Your task to perform on an android device: toggle pop-ups in chrome Image 0: 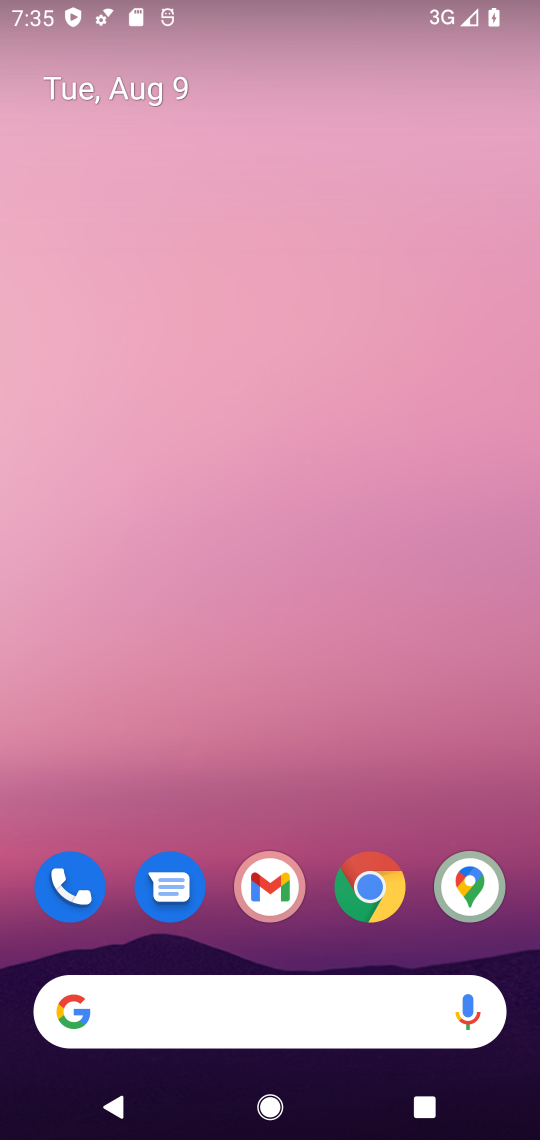
Step 0: click (364, 877)
Your task to perform on an android device: toggle pop-ups in chrome Image 1: 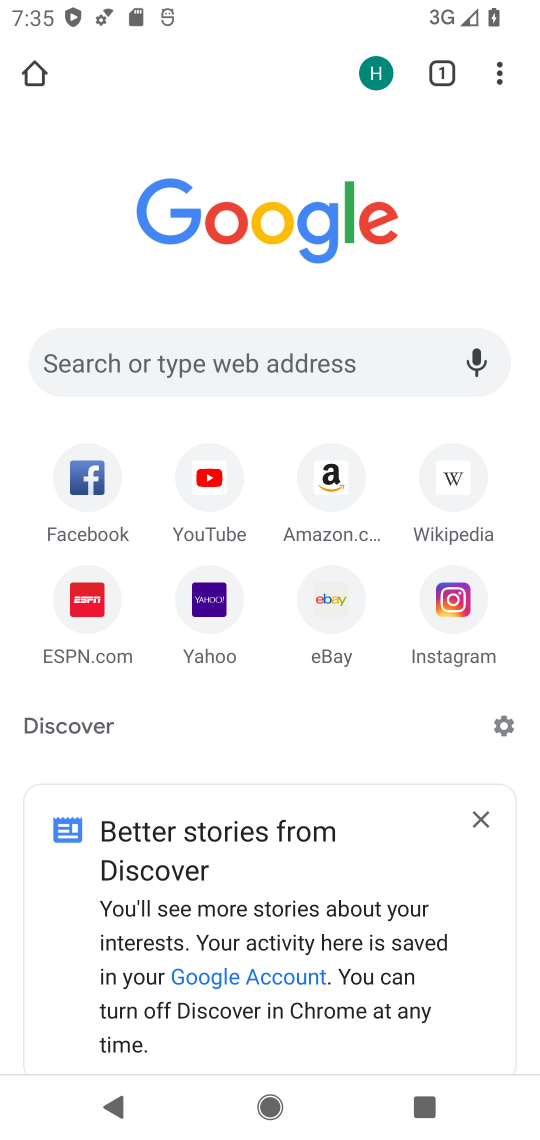
Step 1: click (497, 73)
Your task to perform on an android device: toggle pop-ups in chrome Image 2: 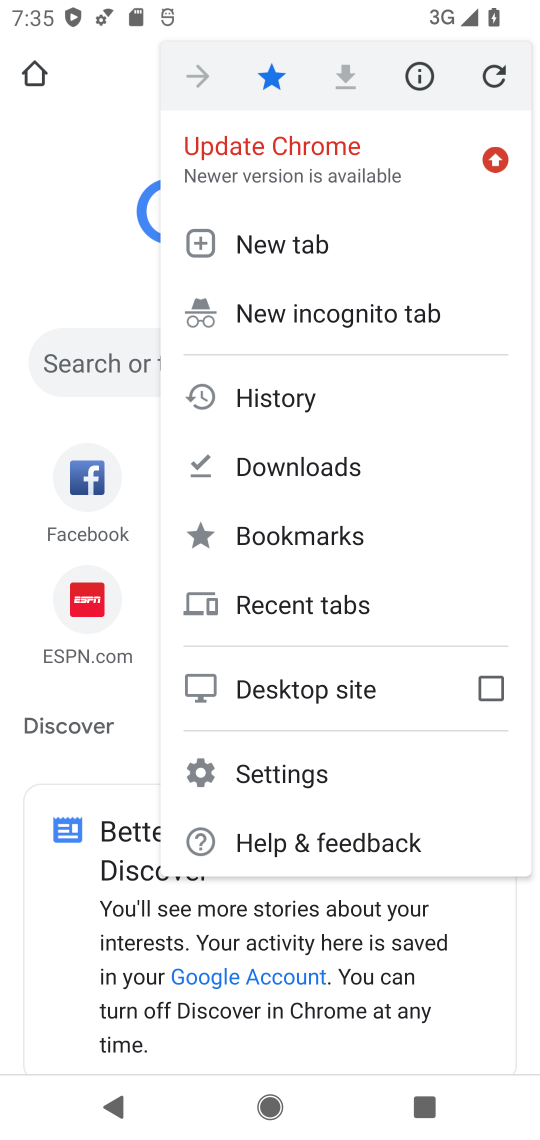
Step 2: click (324, 774)
Your task to perform on an android device: toggle pop-ups in chrome Image 3: 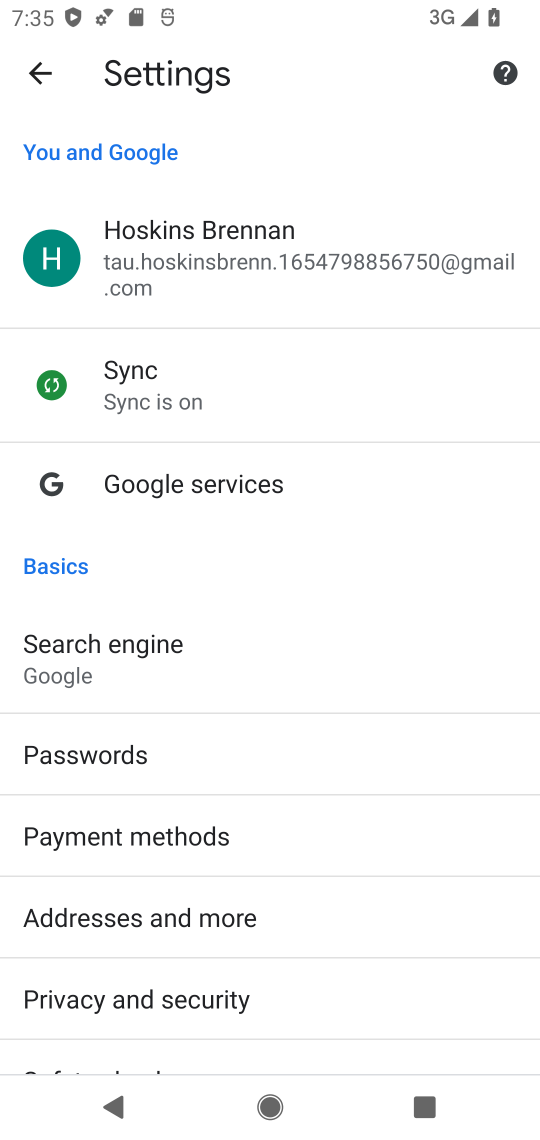
Step 3: drag from (312, 890) to (303, 0)
Your task to perform on an android device: toggle pop-ups in chrome Image 4: 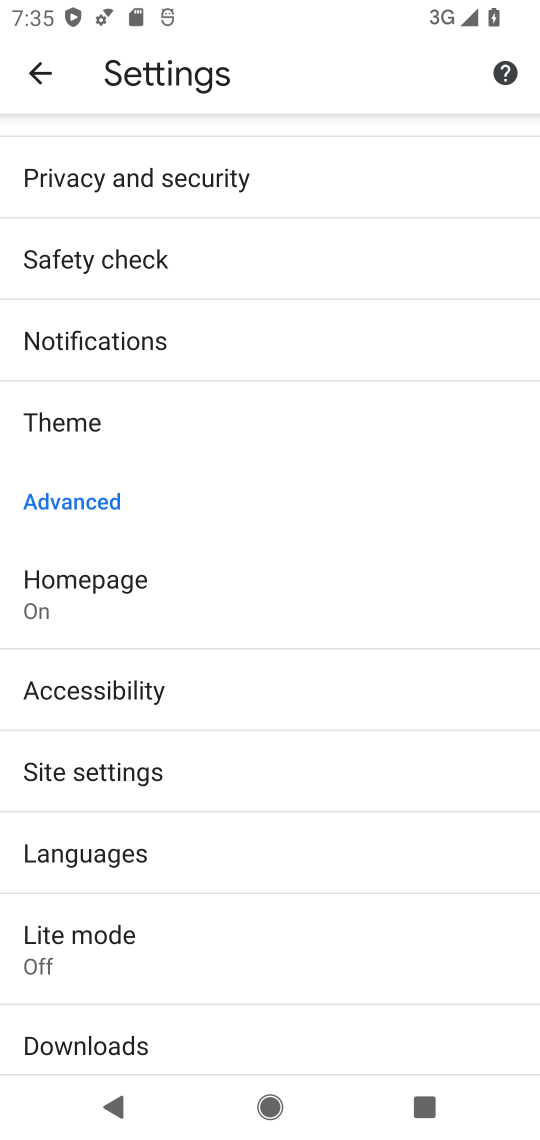
Step 4: click (212, 775)
Your task to perform on an android device: toggle pop-ups in chrome Image 5: 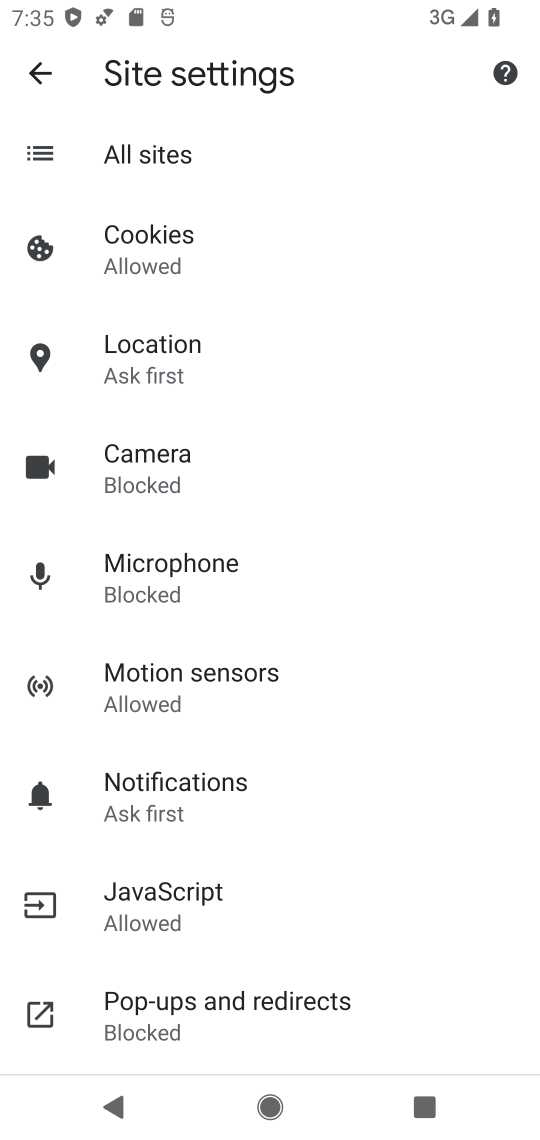
Step 5: click (232, 1010)
Your task to perform on an android device: toggle pop-ups in chrome Image 6: 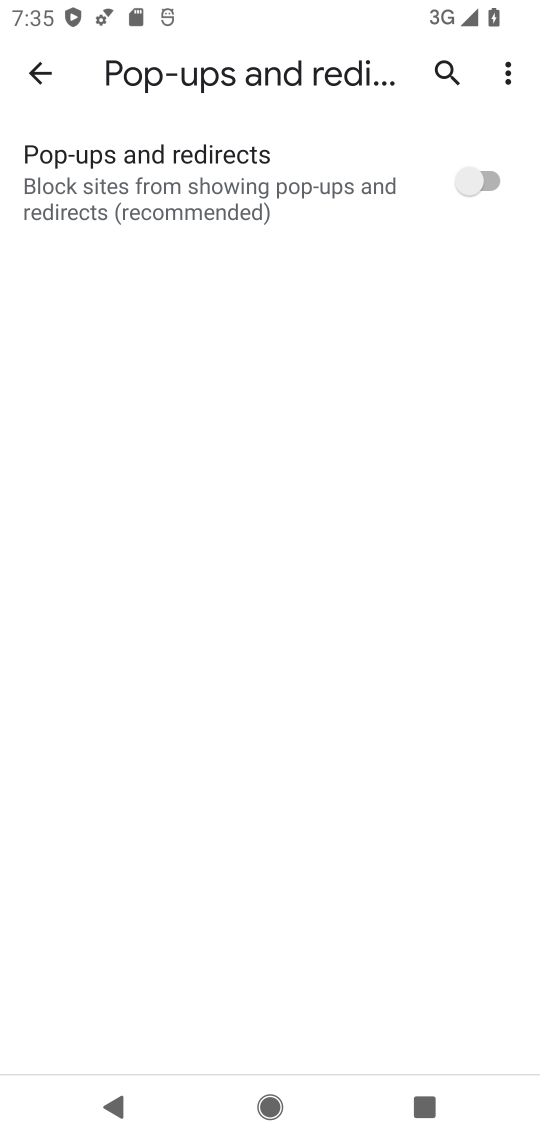
Step 6: click (456, 173)
Your task to perform on an android device: toggle pop-ups in chrome Image 7: 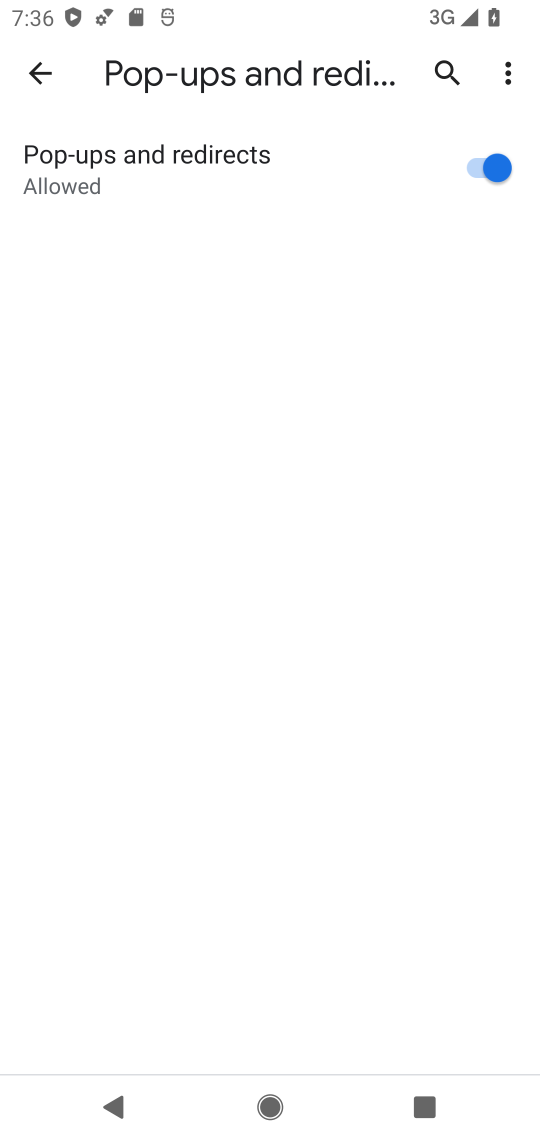
Step 7: task complete